Your task to perform on an android device: open chrome and create a bookmark for the current page Image 0: 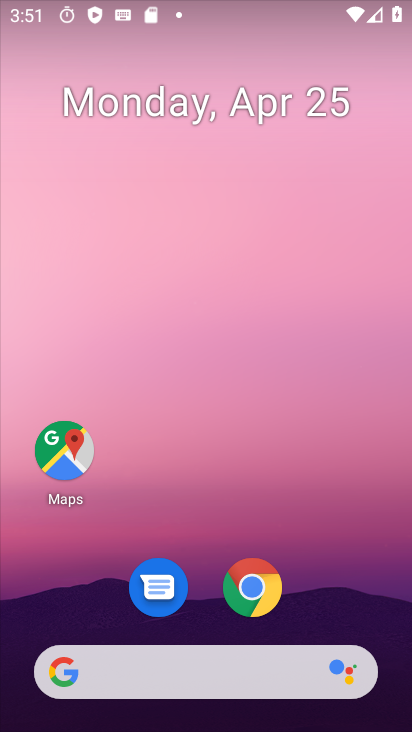
Step 0: drag from (339, 605) to (295, 86)
Your task to perform on an android device: open chrome and create a bookmark for the current page Image 1: 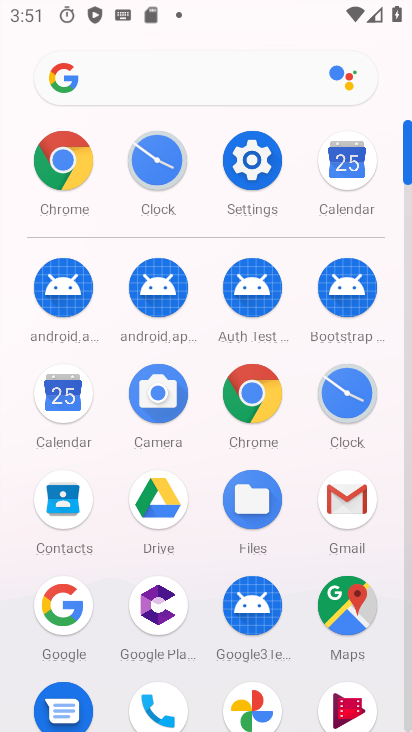
Step 1: click (247, 384)
Your task to perform on an android device: open chrome and create a bookmark for the current page Image 2: 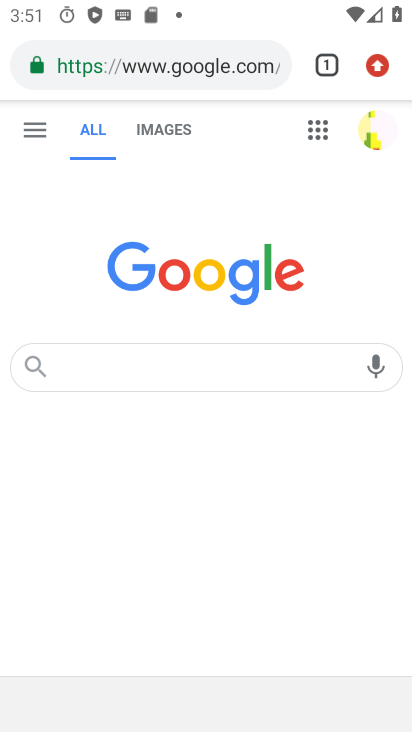
Step 2: task complete